Your task to perform on an android device: open device folders in google photos Image 0: 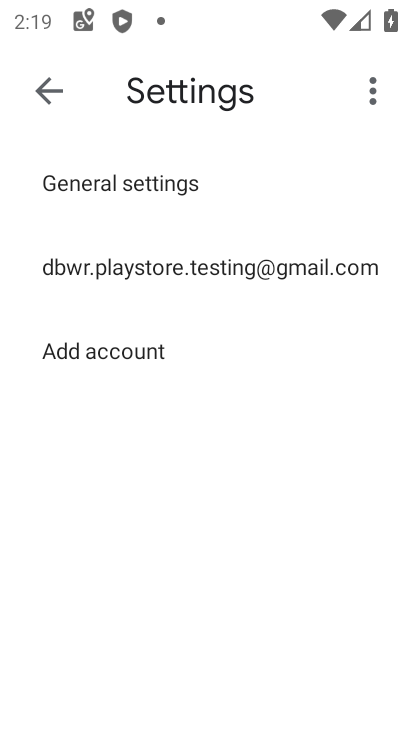
Step 0: press home button
Your task to perform on an android device: open device folders in google photos Image 1: 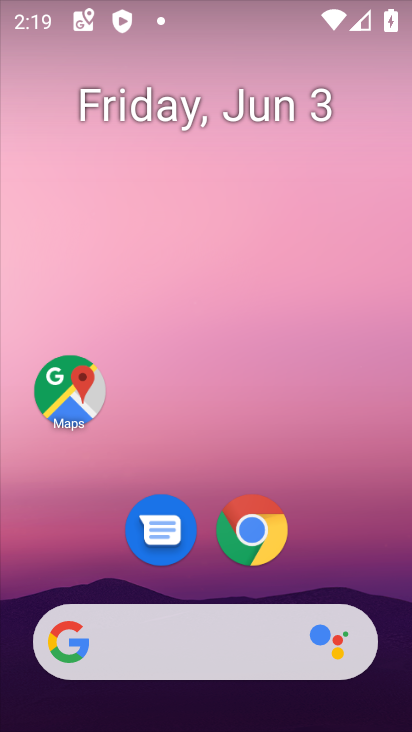
Step 1: drag from (317, 529) to (168, 78)
Your task to perform on an android device: open device folders in google photos Image 2: 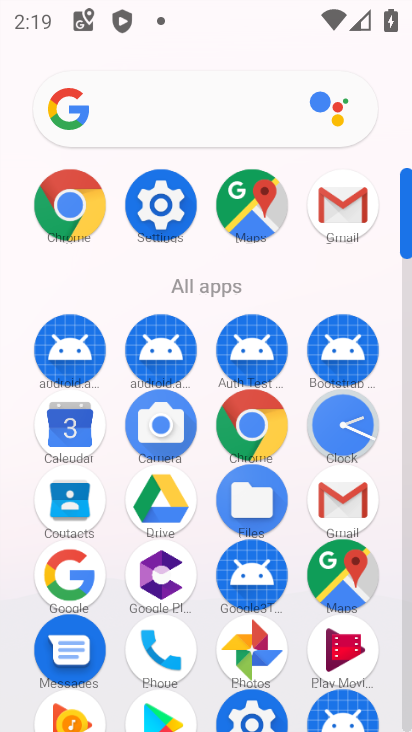
Step 2: click (251, 646)
Your task to perform on an android device: open device folders in google photos Image 3: 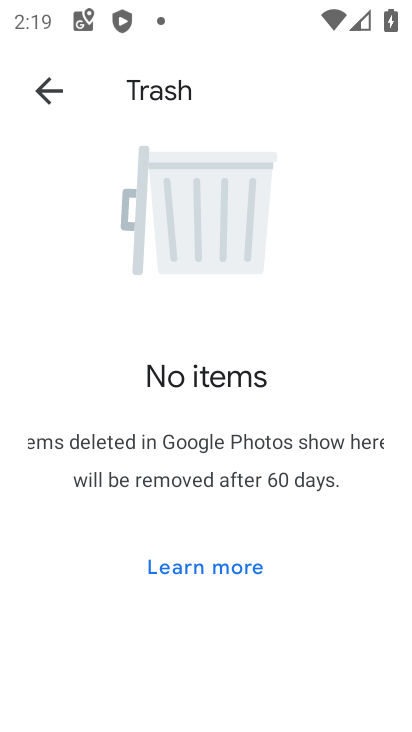
Step 3: click (47, 93)
Your task to perform on an android device: open device folders in google photos Image 4: 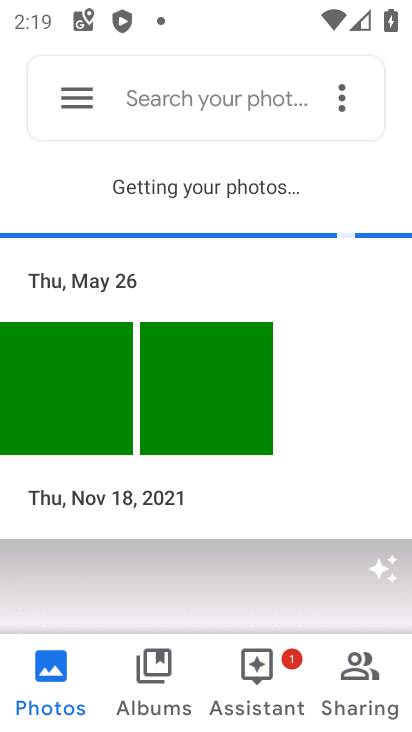
Step 4: click (82, 96)
Your task to perform on an android device: open device folders in google photos Image 5: 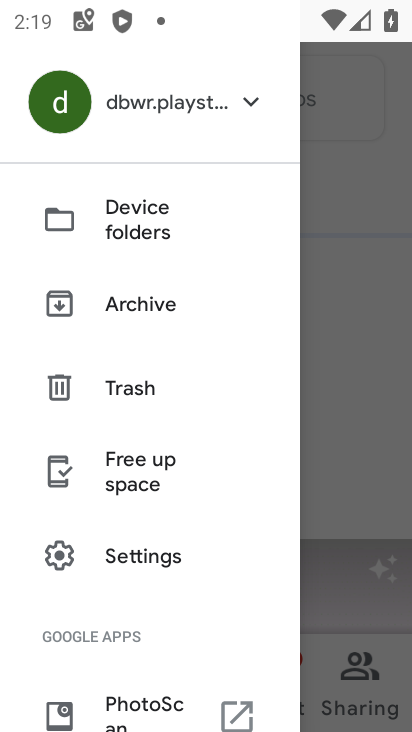
Step 5: click (157, 230)
Your task to perform on an android device: open device folders in google photos Image 6: 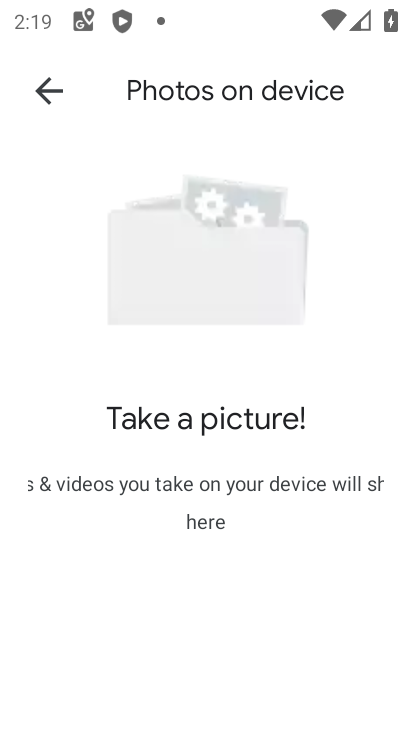
Step 6: task complete